Your task to perform on an android device: add a contact in the contacts app Image 0: 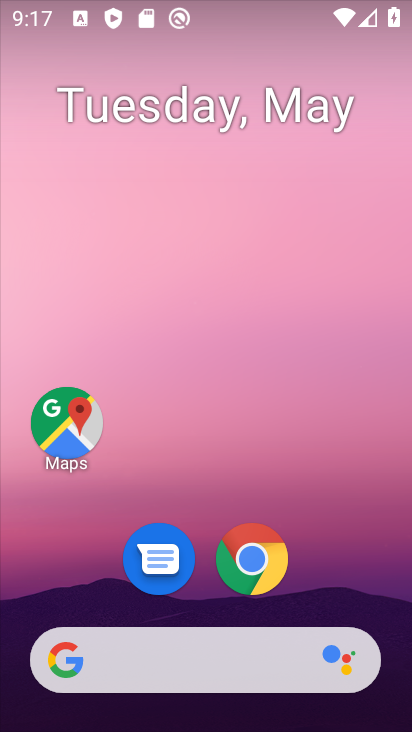
Step 0: drag from (218, 655) to (231, 207)
Your task to perform on an android device: add a contact in the contacts app Image 1: 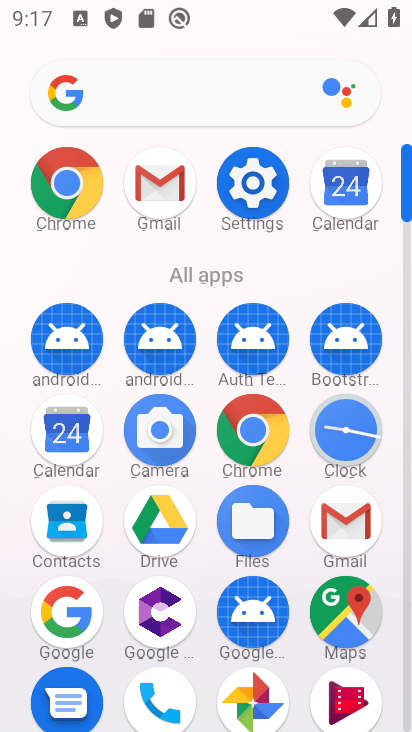
Step 1: click (69, 517)
Your task to perform on an android device: add a contact in the contacts app Image 2: 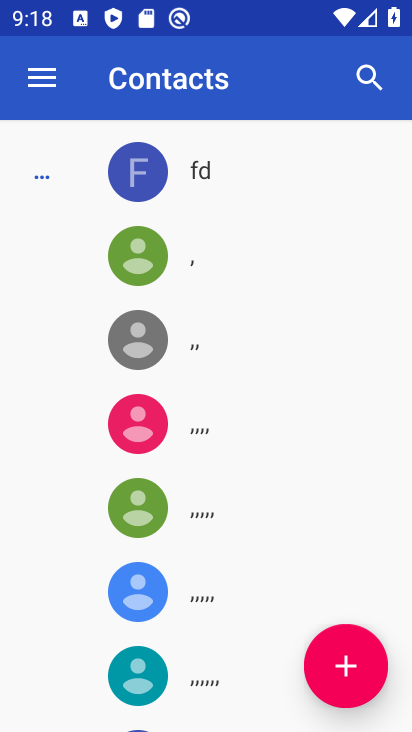
Step 2: click (357, 664)
Your task to perform on an android device: add a contact in the contacts app Image 3: 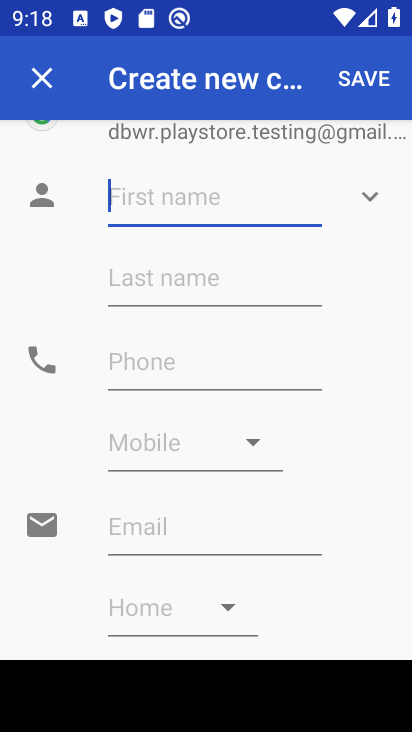
Step 3: press home button
Your task to perform on an android device: add a contact in the contacts app Image 4: 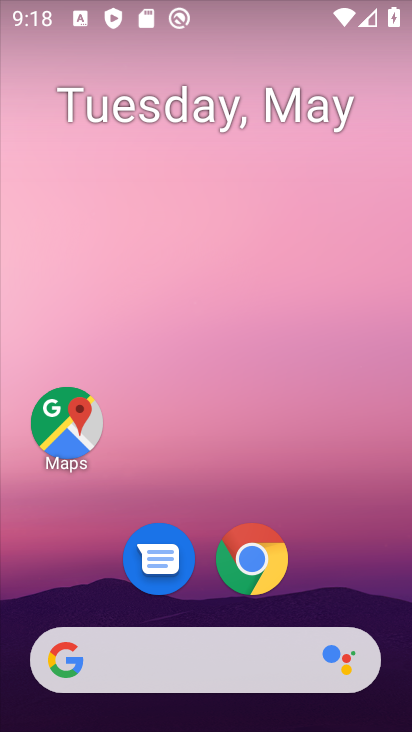
Step 4: drag from (202, 659) to (193, 412)
Your task to perform on an android device: add a contact in the contacts app Image 5: 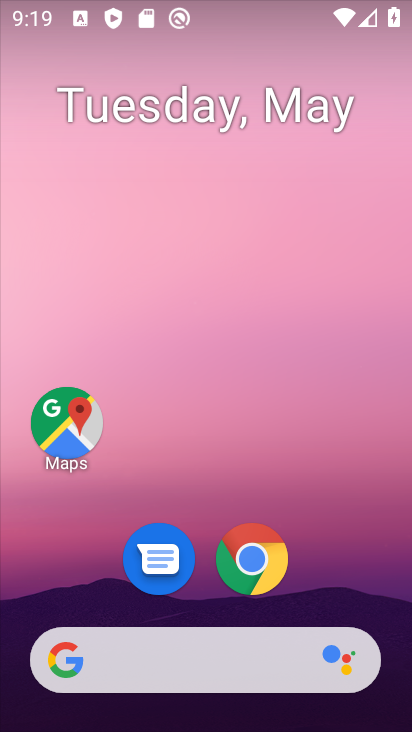
Step 5: click (265, 570)
Your task to perform on an android device: add a contact in the contacts app Image 6: 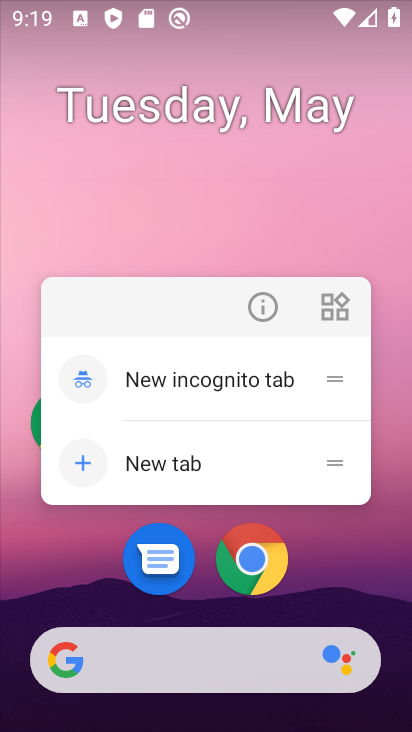
Step 6: click (264, 565)
Your task to perform on an android device: add a contact in the contacts app Image 7: 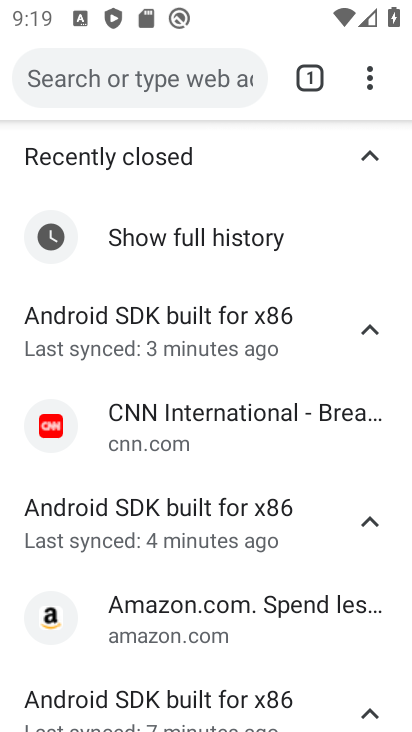
Step 7: press home button
Your task to perform on an android device: add a contact in the contacts app Image 8: 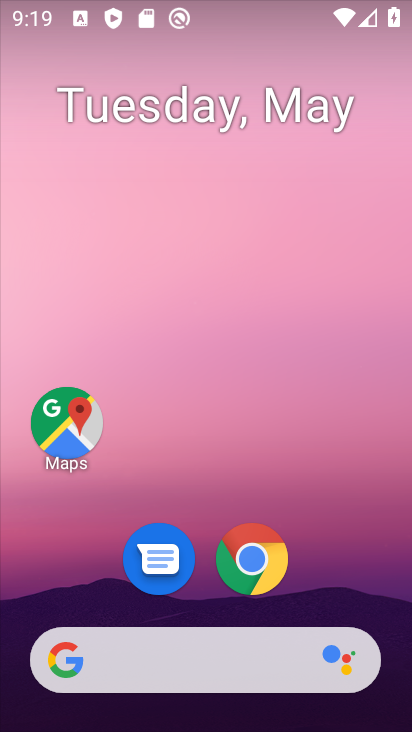
Step 8: drag from (225, 662) to (183, 55)
Your task to perform on an android device: add a contact in the contacts app Image 9: 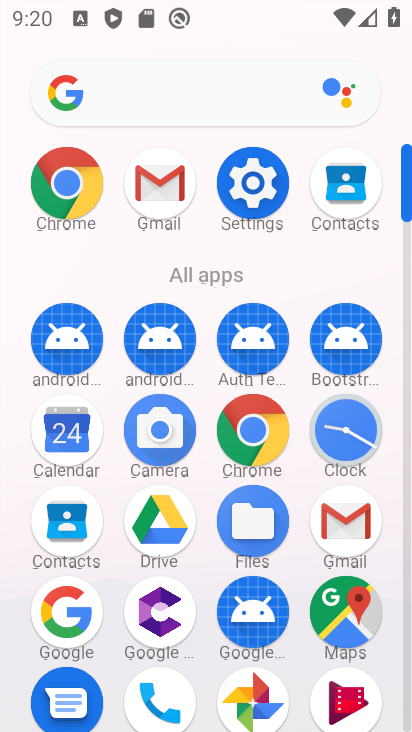
Step 9: click (55, 528)
Your task to perform on an android device: add a contact in the contacts app Image 10: 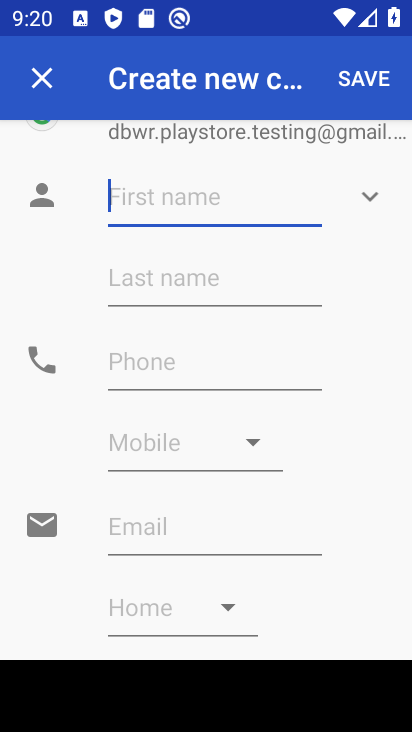
Step 10: type "vbsd"
Your task to perform on an android device: add a contact in the contacts app Image 11: 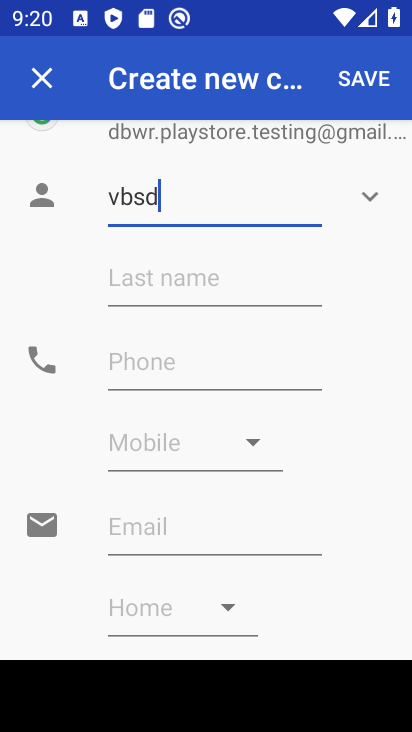
Step 11: click (295, 382)
Your task to perform on an android device: add a contact in the contacts app Image 12: 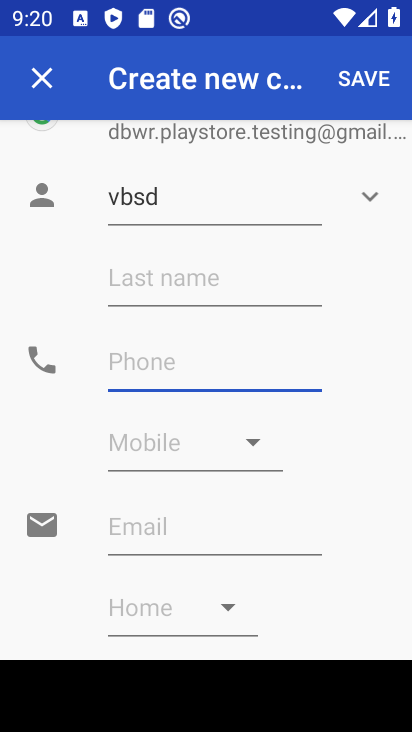
Step 12: type "78678976"
Your task to perform on an android device: add a contact in the contacts app Image 13: 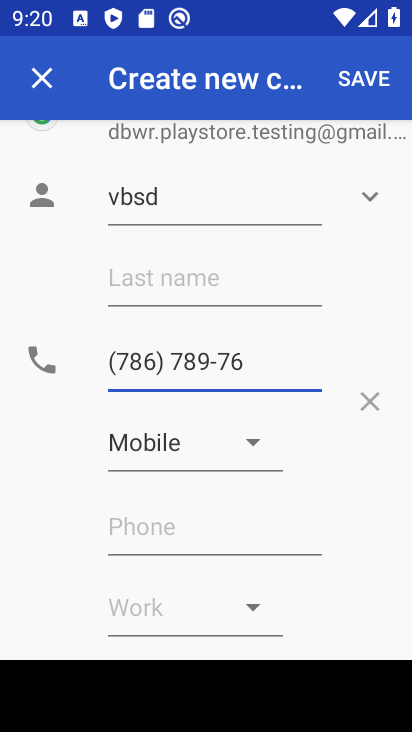
Step 13: click (352, 77)
Your task to perform on an android device: add a contact in the contacts app Image 14: 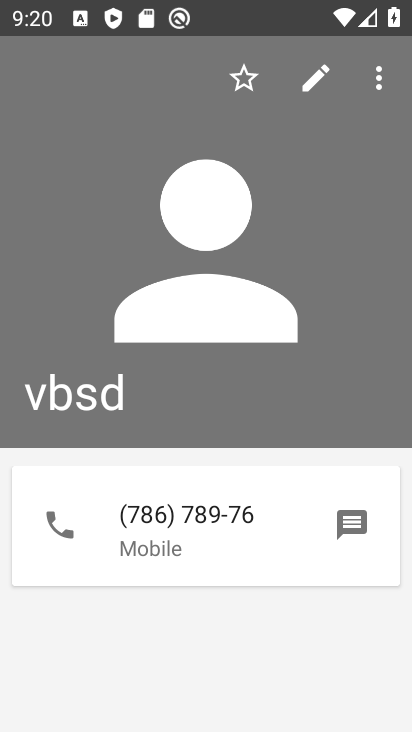
Step 14: task complete